Your task to perform on an android device: find snoozed emails in the gmail app Image 0: 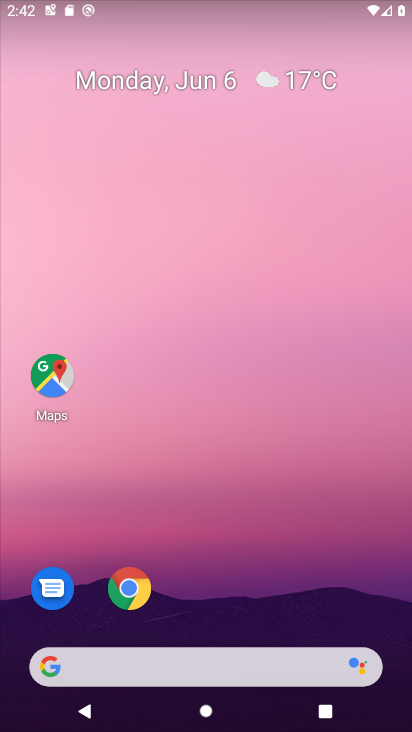
Step 0: drag from (237, 714) to (297, 10)
Your task to perform on an android device: find snoozed emails in the gmail app Image 1: 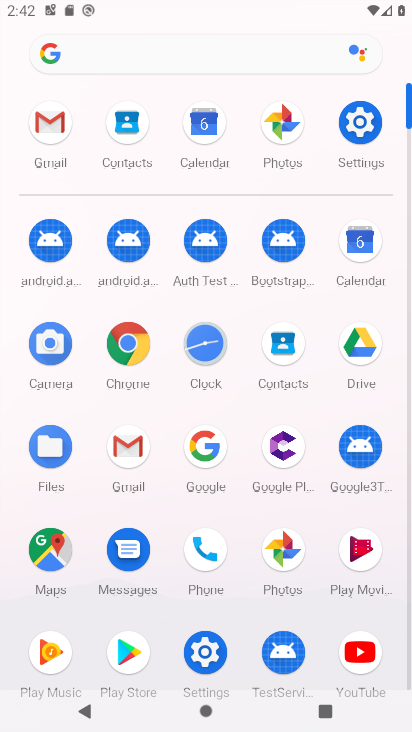
Step 1: click (43, 137)
Your task to perform on an android device: find snoozed emails in the gmail app Image 2: 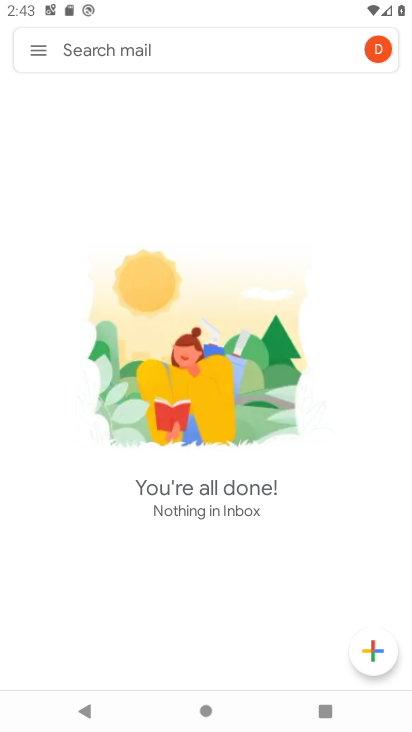
Step 2: click (34, 55)
Your task to perform on an android device: find snoozed emails in the gmail app Image 3: 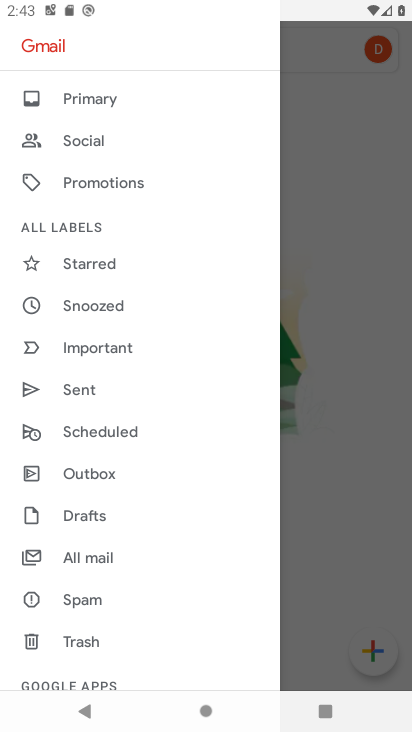
Step 3: click (152, 308)
Your task to perform on an android device: find snoozed emails in the gmail app Image 4: 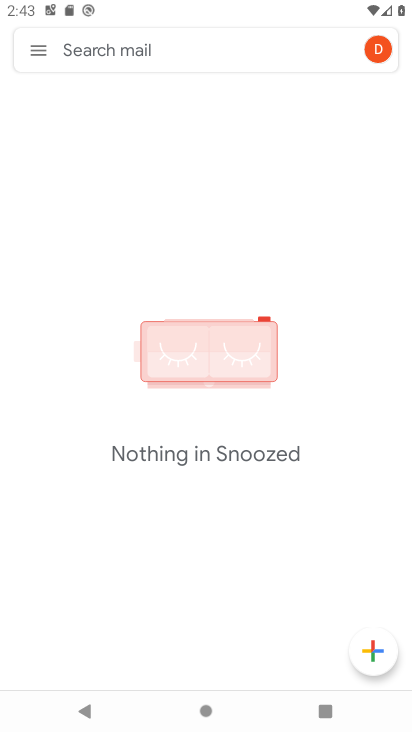
Step 4: task complete